Your task to perform on an android device: change text size in settings app Image 0: 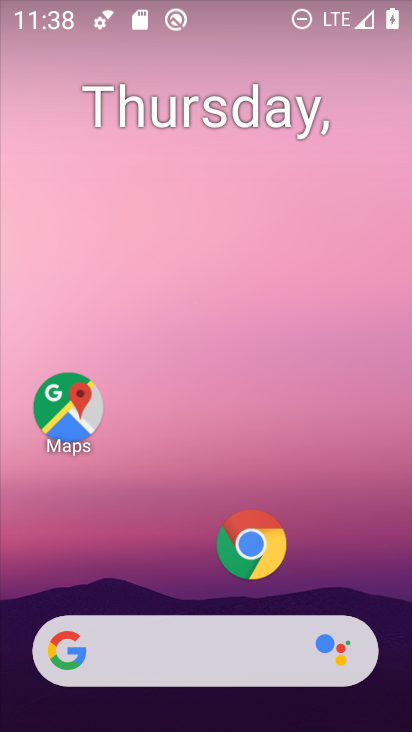
Step 0: drag from (212, 608) to (216, 27)
Your task to perform on an android device: change text size in settings app Image 1: 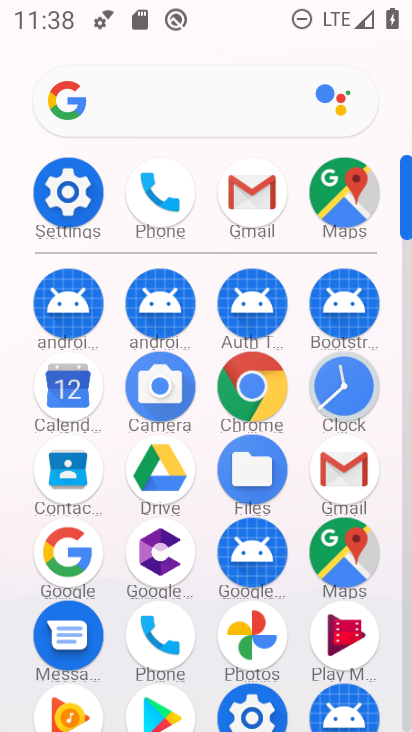
Step 1: click (72, 207)
Your task to perform on an android device: change text size in settings app Image 2: 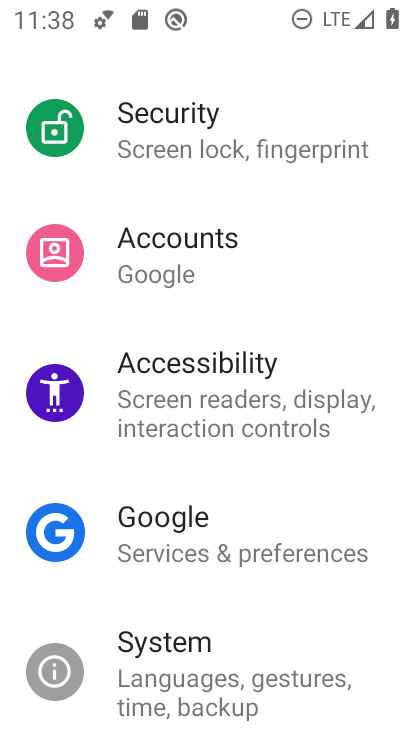
Step 2: drag from (177, 144) to (108, 722)
Your task to perform on an android device: change text size in settings app Image 3: 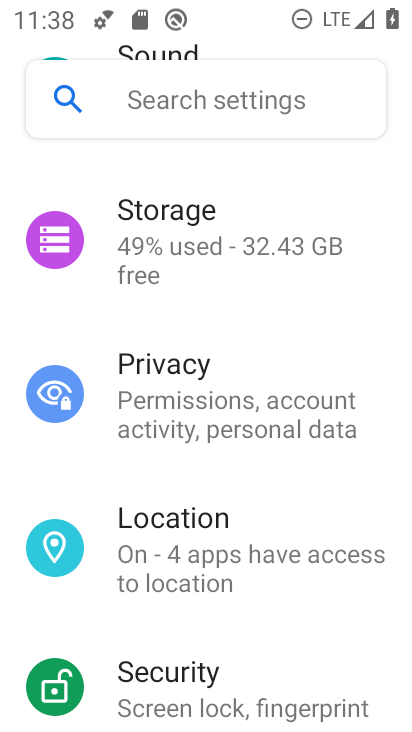
Step 3: drag from (172, 269) to (138, 722)
Your task to perform on an android device: change text size in settings app Image 4: 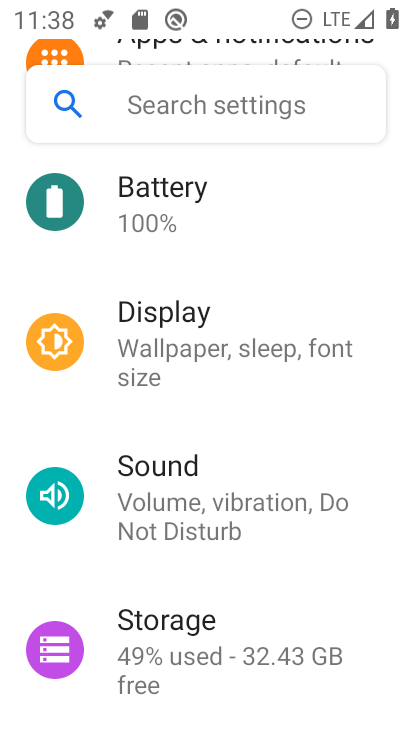
Step 4: click (172, 343)
Your task to perform on an android device: change text size in settings app Image 5: 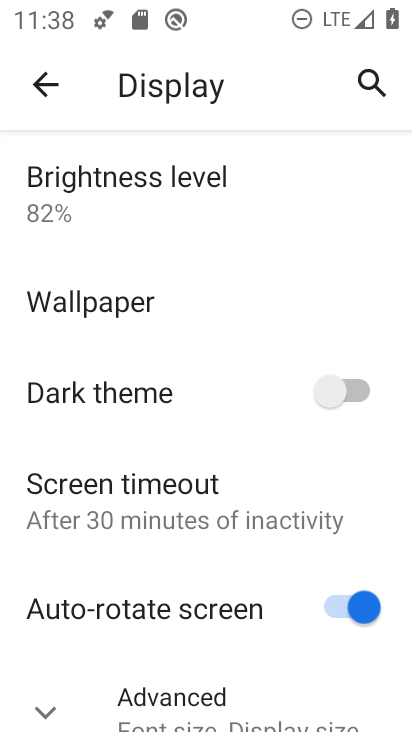
Step 5: click (173, 664)
Your task to perform on an android device: change text size in settings app Image 6: 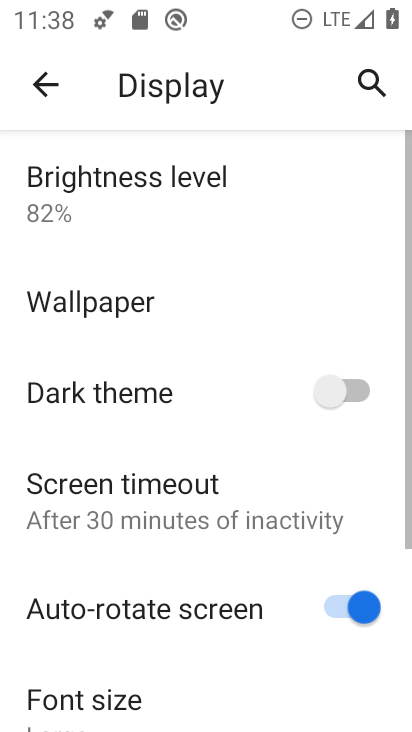
Step 6: drag from (173, 664) to (181, 203)
Your task to perform on an android device: change text size in settings app Image 7: 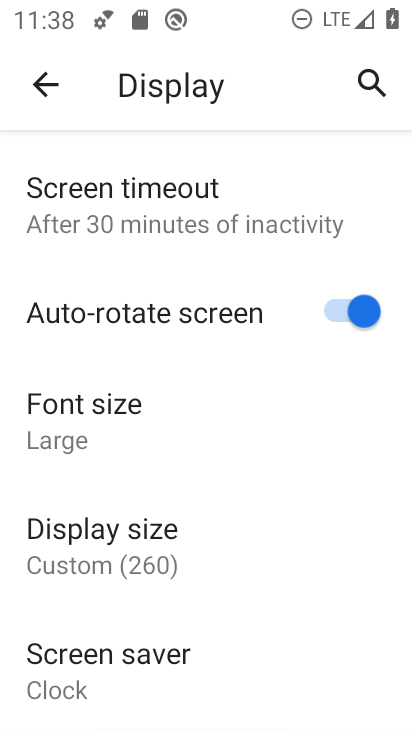
Step 7: click (139, 426)
Your task to perform on an android device: change text size in settings app Image 8: 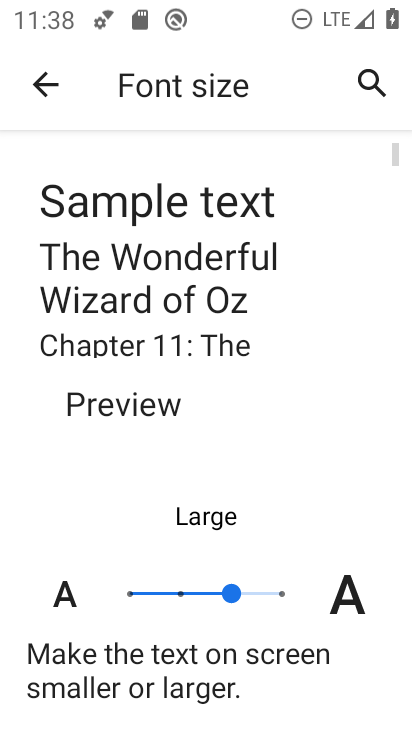
Step 8: click (184, 590)
Your task to perform on an android device: change text size in settings app Image 9: 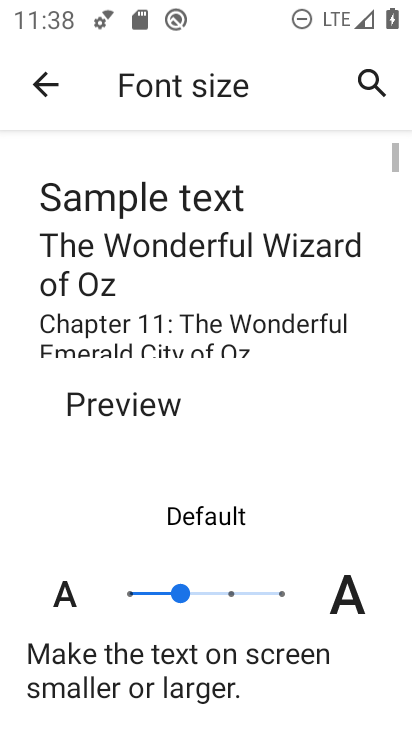
Step 9: task complete